Your task to perform on an android device: open app "LinkedIn" (install if not already installed) and enter user name: "dirt@inbox.com" and password: "receptionist" Image 0: 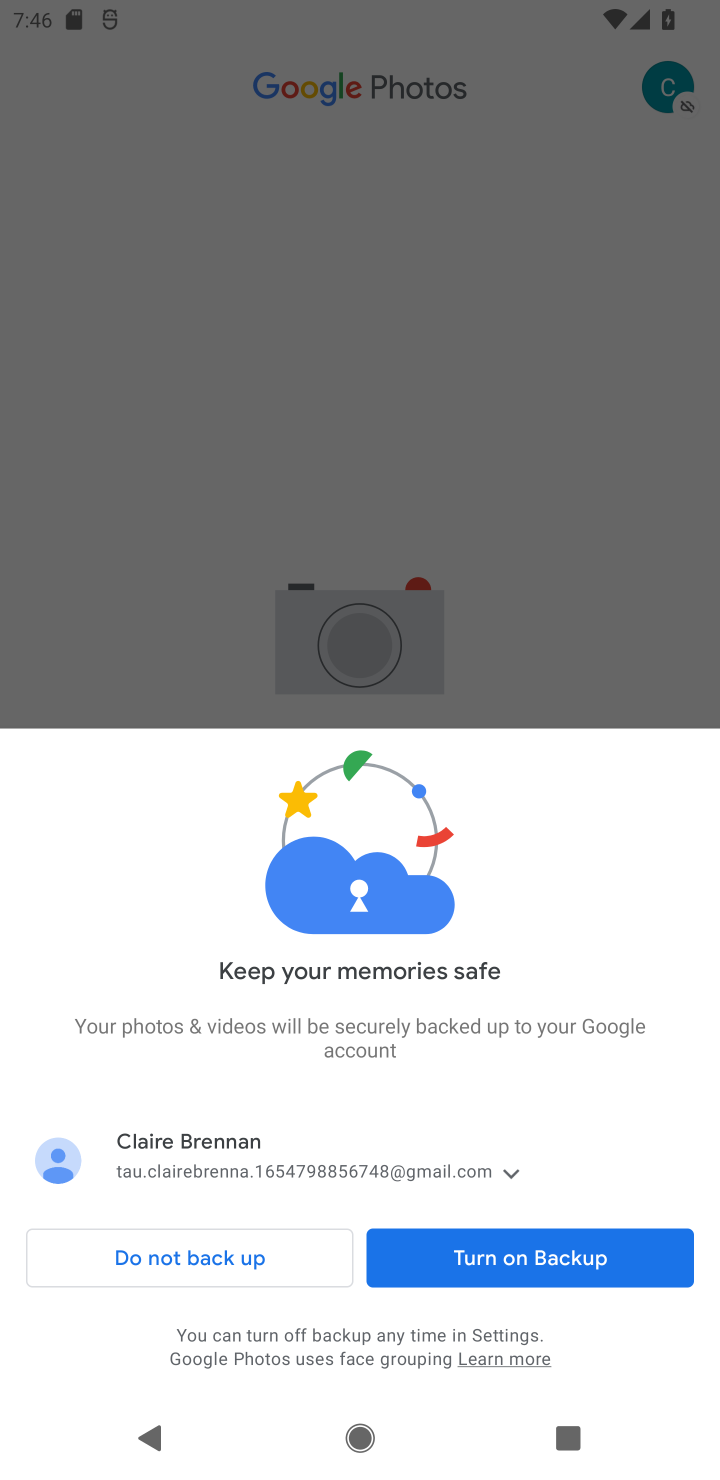
Step 0: press home button
Your task to perform on an android device: open app "LinkedIn" (install if not already installed) and enter user name: "dirt@inbox.com" and password: "receptionist" Image 1: 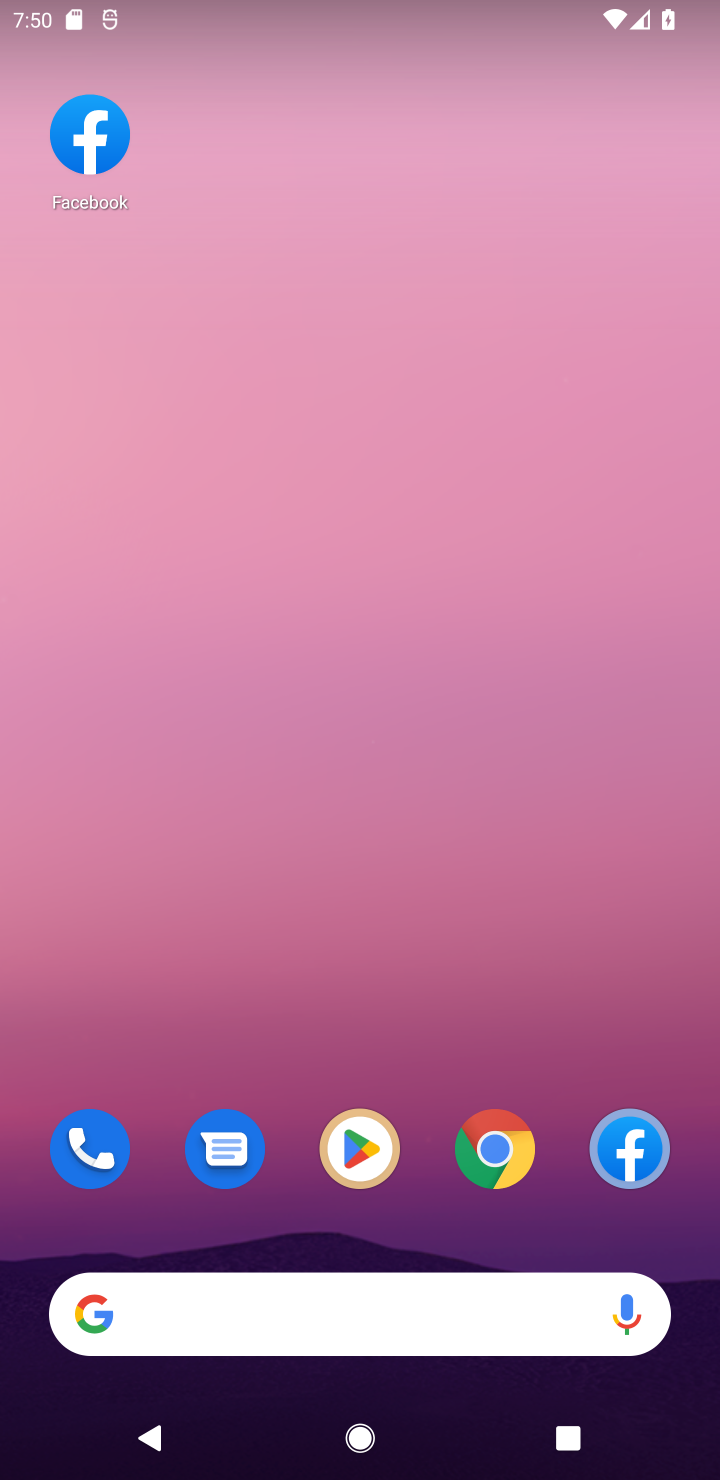
Step 1: drag from (685, 1157) to (393, 9)
Your task to perform on an android device: open app "LinkedIn" (install if not already installed) and enter user name: "dirt@inbox.com" and password: "receptionist" Image 2: 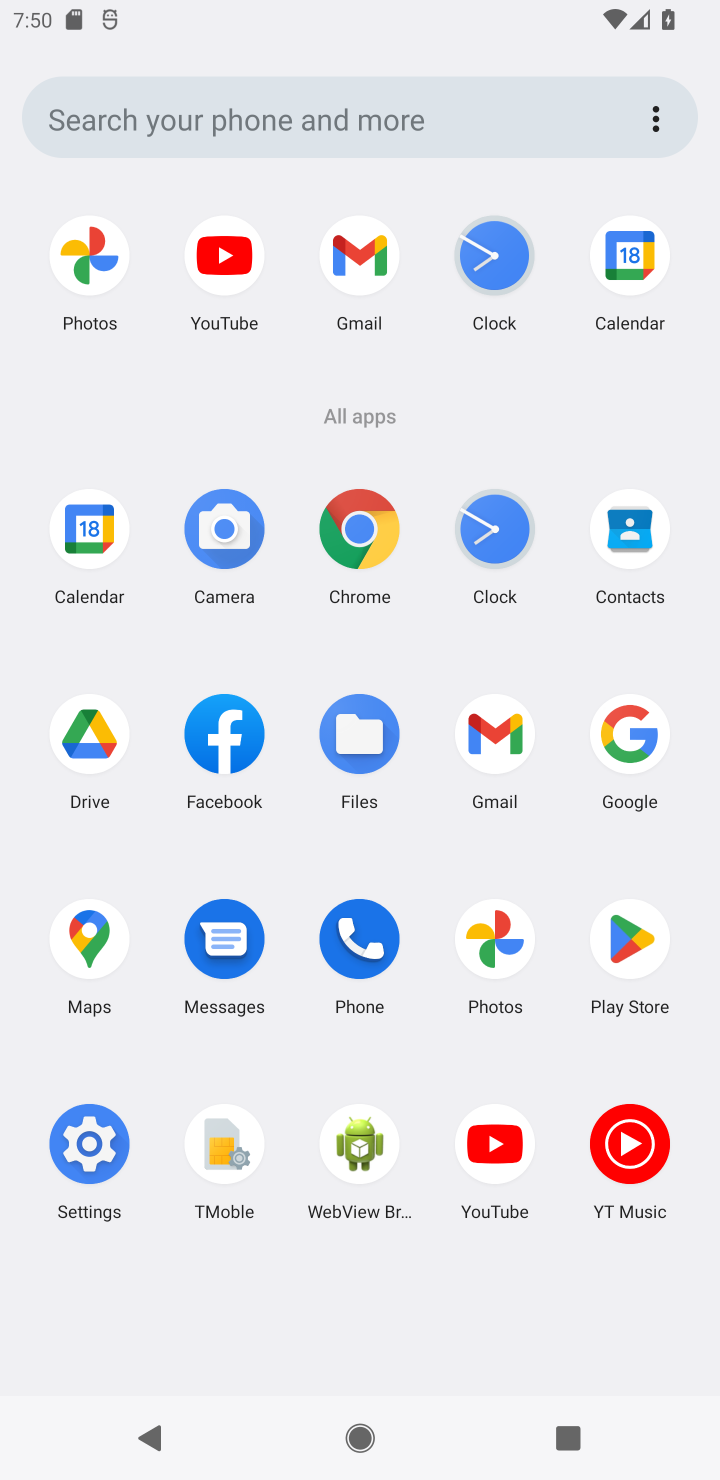
Step 2: click (619, 940)
Your task to perform on an android device: open app "LinkedIn" (install if not already installed) and enter user name: "dirt@inbox.com" and password: "receptionist" Image 3: 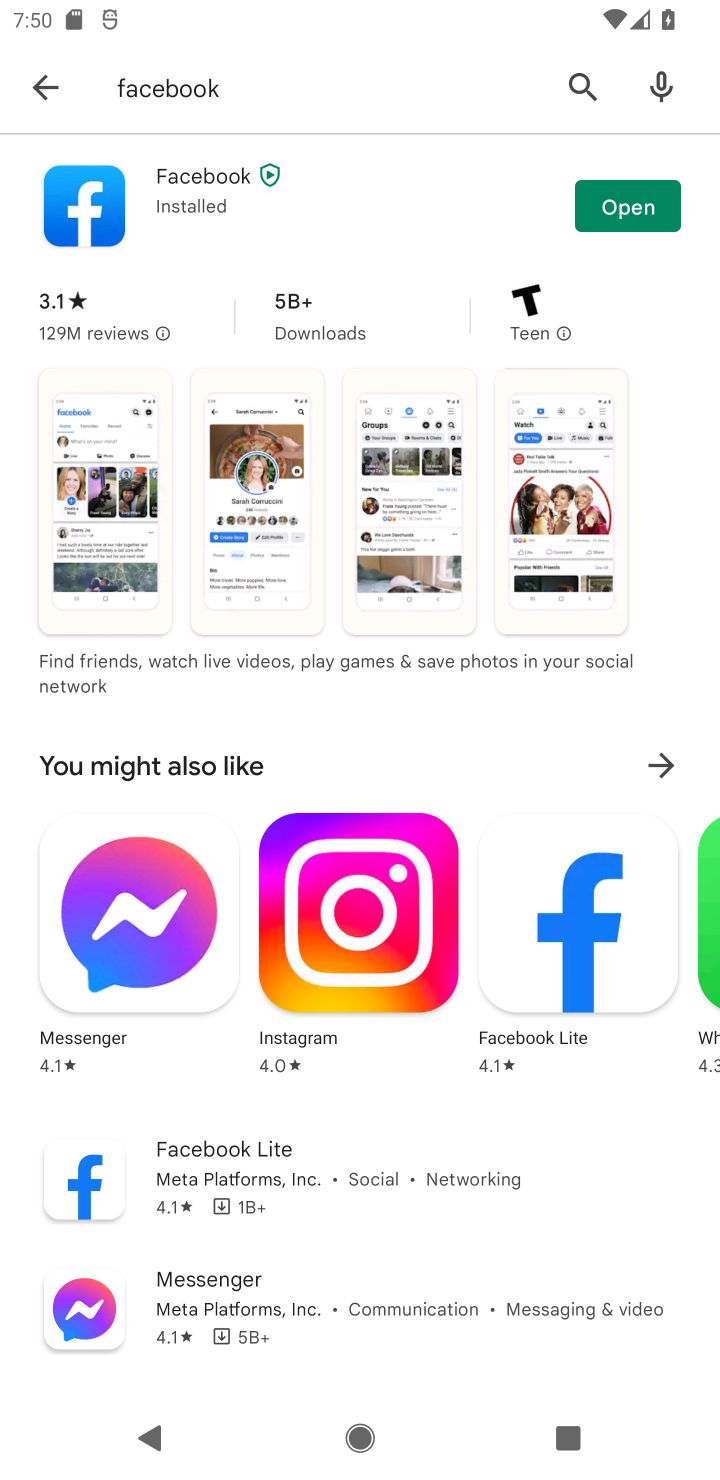
Step 3: press back button
Your task to perform on an android device: open app "LinkedIn" (install if not already installed) and enter user name: "dirt@inbox.com" and password: "receptionist" Image 4: 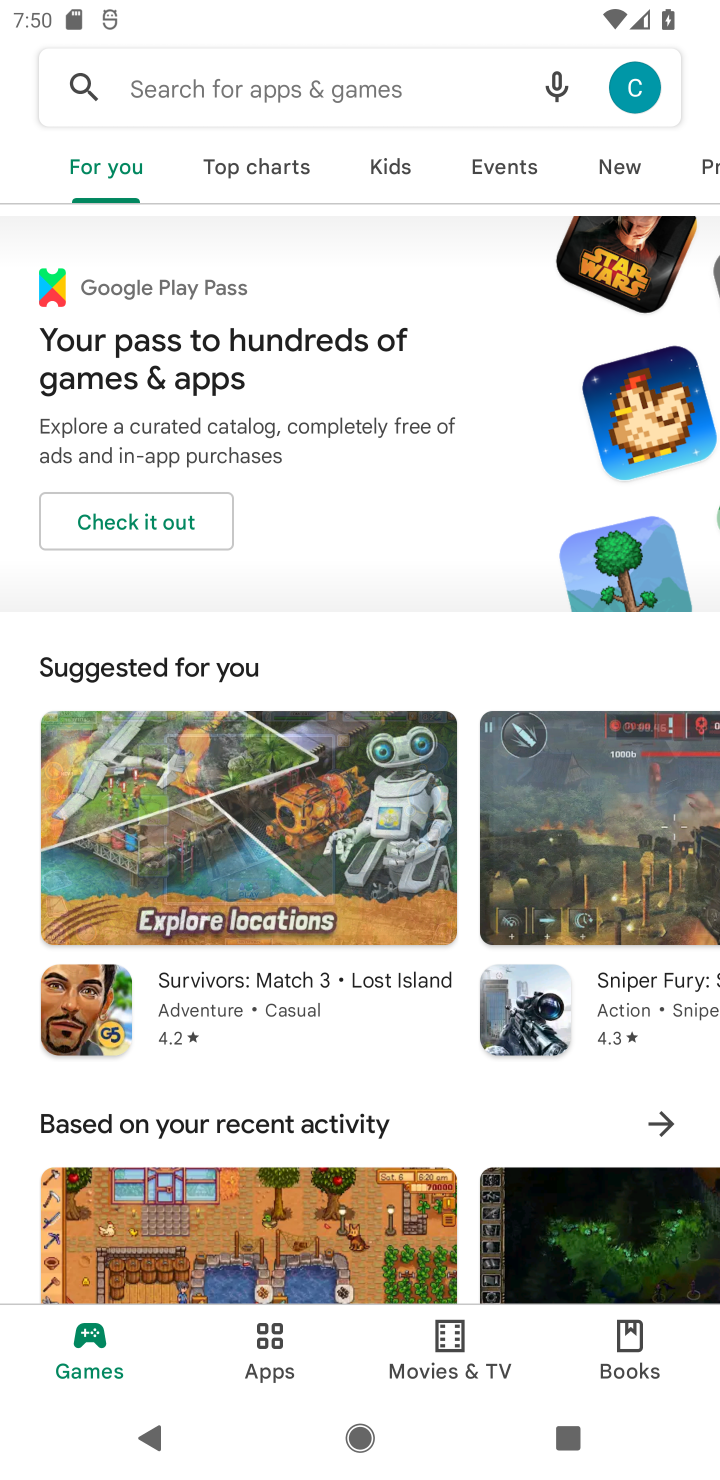
Step 4: click (216, 86)
Your task to perform on an android device: open app "LinkedIn" (install if not already installed) and enter user name: "dirt@inbox.com" and password: "receptionist" Image 5: 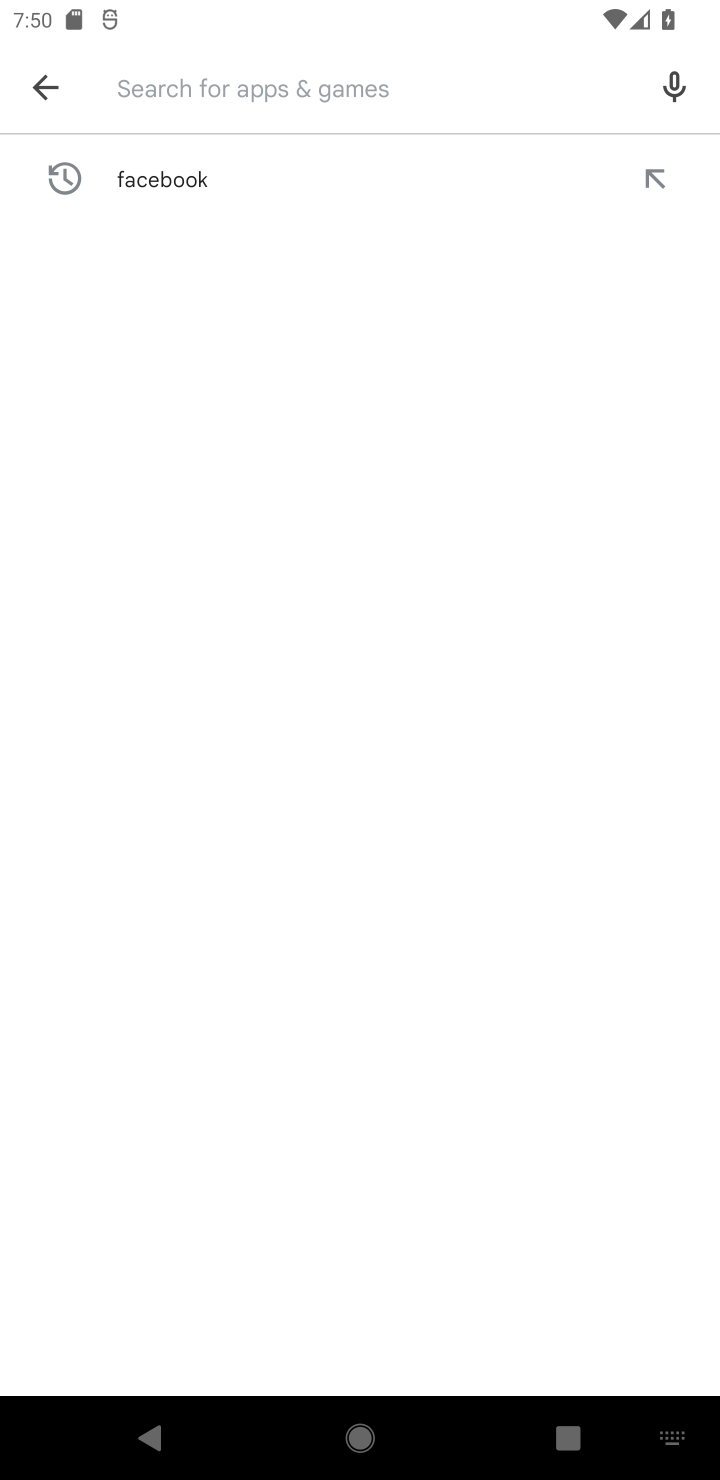
Step 5: type "LinkedIn"
Your task to perform on an android device: open app "LinkedIn" (install if not already installed) and enter user name: "dirt@inbox.com" and password: "receptionist" Image 6: 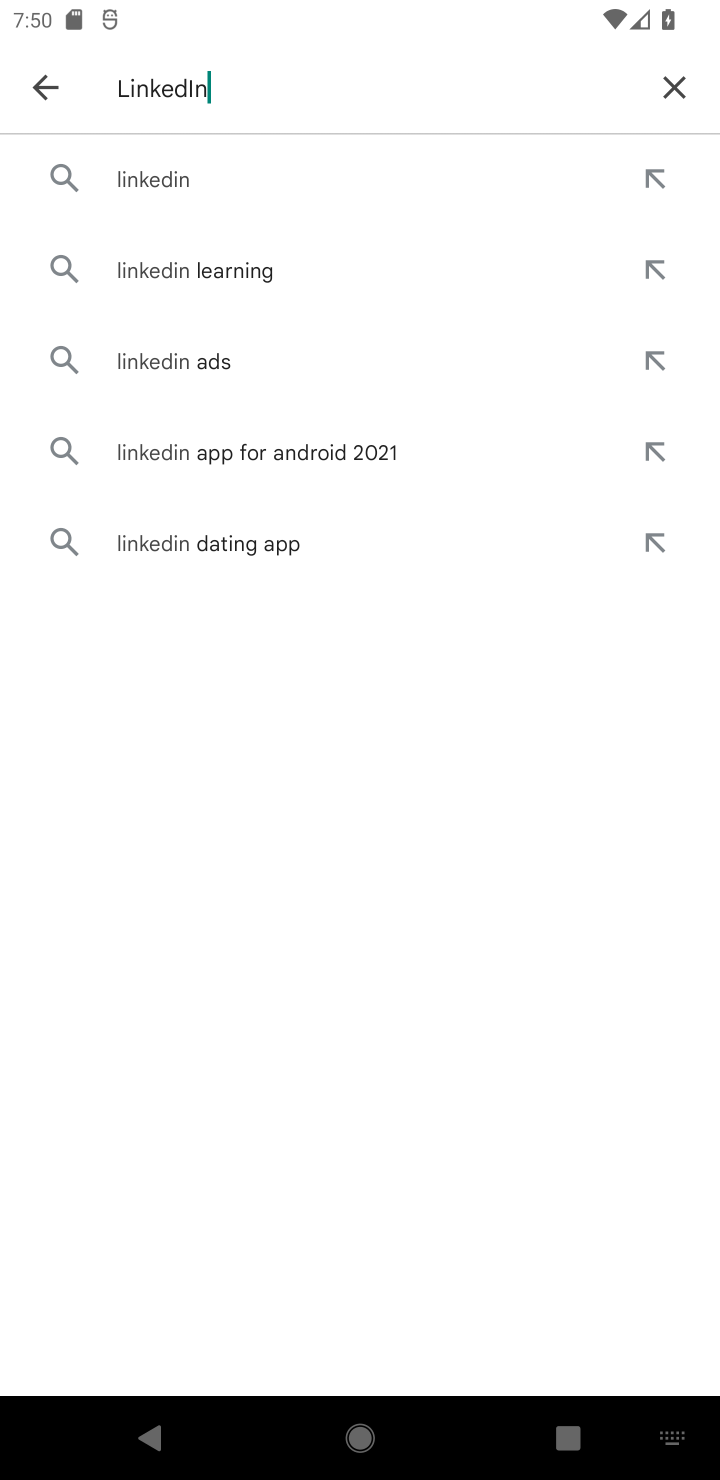
Step 6: click (281, 185)
Your task to perform on an android device: open app "LinkedIn" (install if not already installed) and enter user name: "dirt@inbox.com" and password: "receptionist" Image 7: 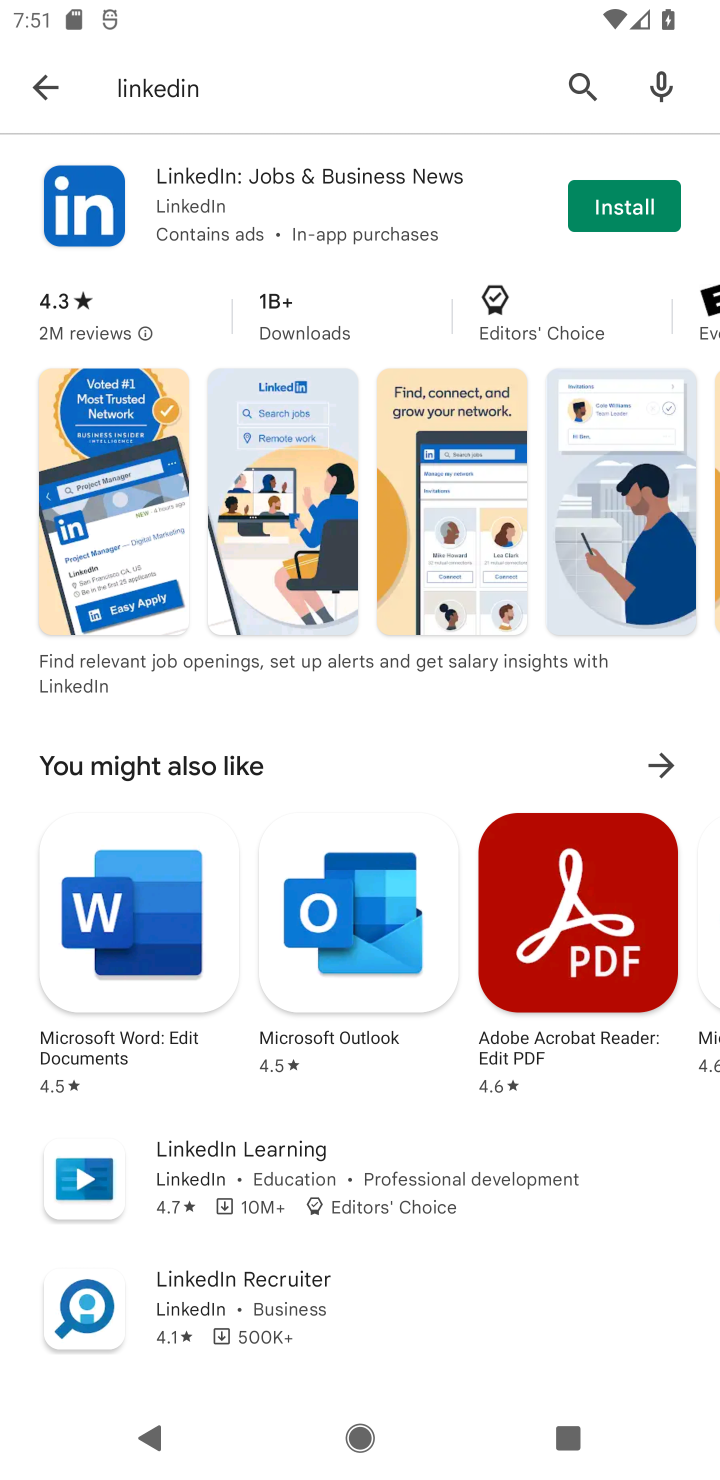
Step 7: task complete